Your task to perform on an android device: Go to calendar. Show me events next week Image 0: 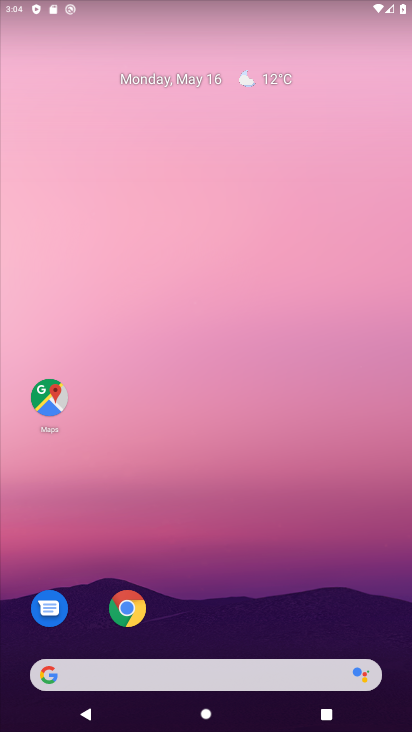
Step 0: drag from (174, 579) to (210, 218)
Your task to perform on an android device: Go to calendar. Show me events next week Image 1: 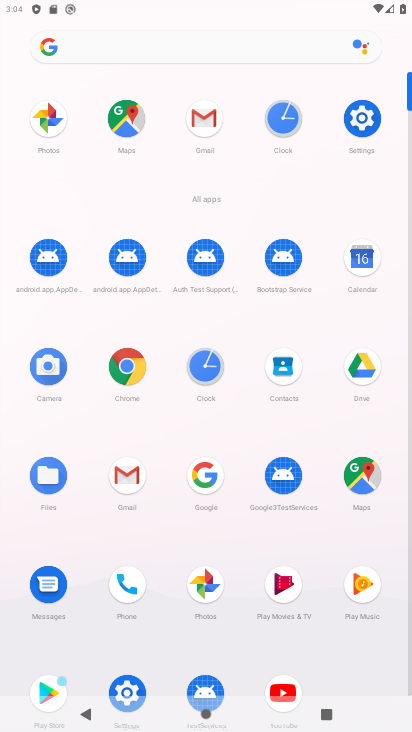
Step 1: click (368, 263)
Your task to perform on an android device: Go to calendar. Show me events next week Image 2: 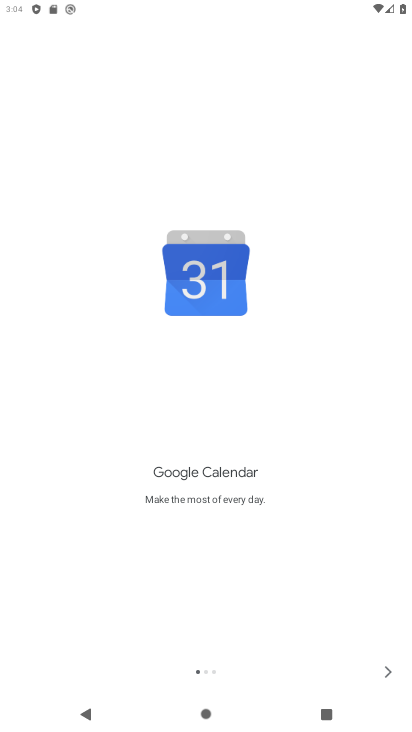
Step 2: click (394, 673)
Your task to perform on an android device: Go to calendar. Show me events next week Image 3: 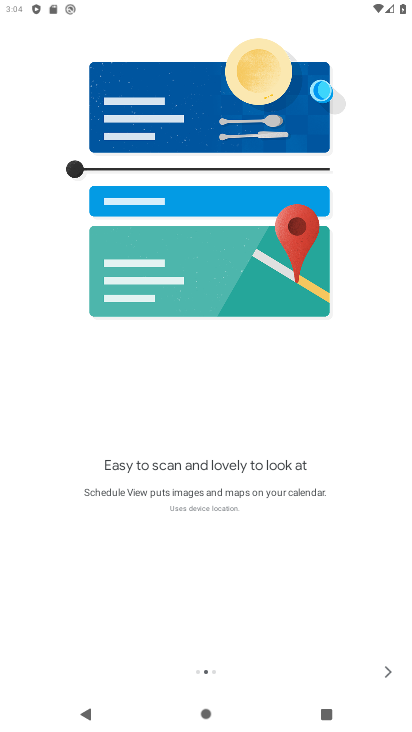
Step 3: click (392, 672)
Your task to perform on an android device: Go to calendar. Show me events next week Image 4: 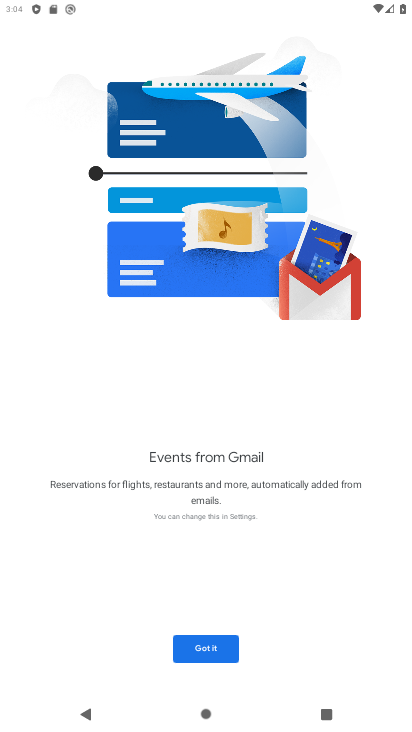
Step 4: click (211, 642)
Your task to perform on an android device: Go to calendar. Show me events next week Image 5: 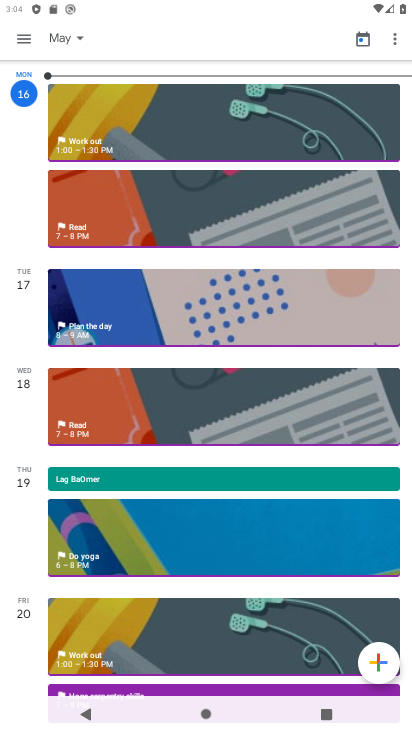
Step 5: click (73, 36)
Your task to perform on an android device: Go to calendar. Show me events next week Image 6: 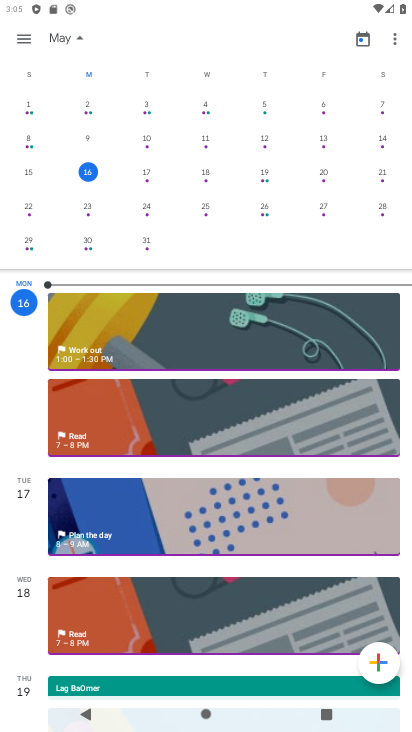
Step 6: drag from (397, 162) to (40, 152)
Your task to perform on an android device: Go to calendar. Show me events next week Image 7: 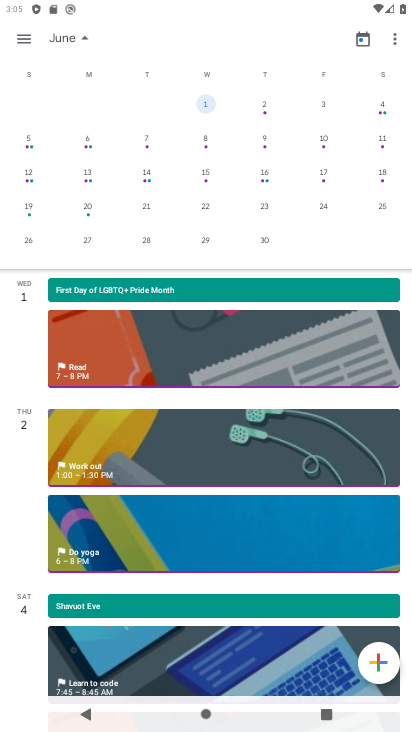
Step 7: drag from (71, 110) to (366, 109)
Your task to perform on an android device: Go to calendar. Show me events next week Image 8: 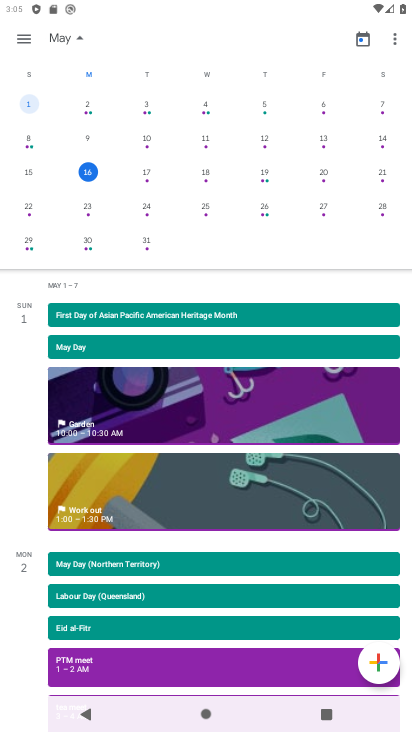
Step 8: click (146, 197)
Your task to perform on an android device: Go to calendar. Show me events next week Image 9: 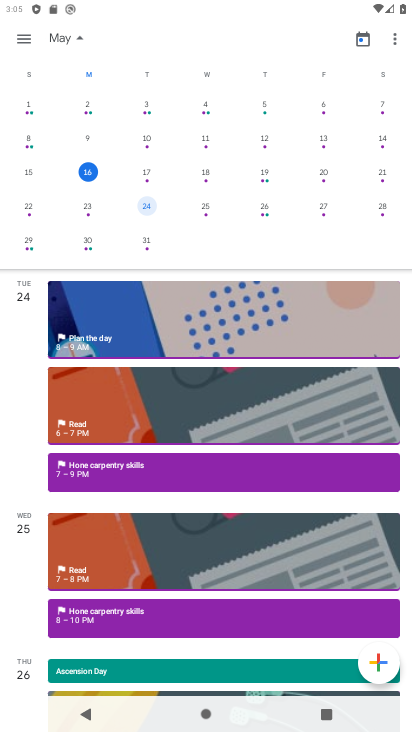
Step 9: click (95, 198)
Your task to perform on an android device: Go to calendar. Show me events next week Image 10: 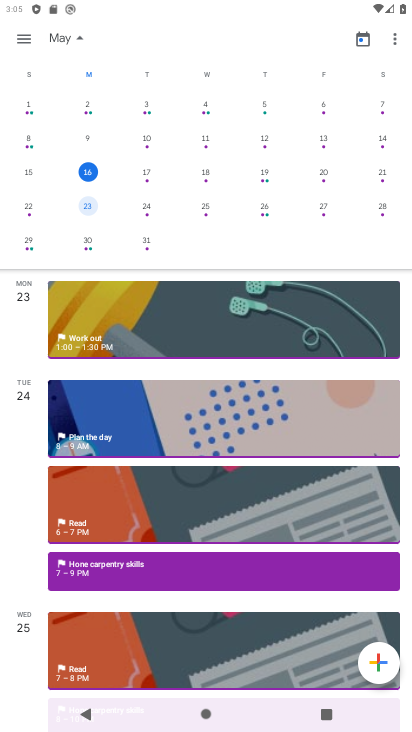
Step 10: click (199, 214)
Your task to perform on an android device: Go to calendar. Show me events next week Image 11: 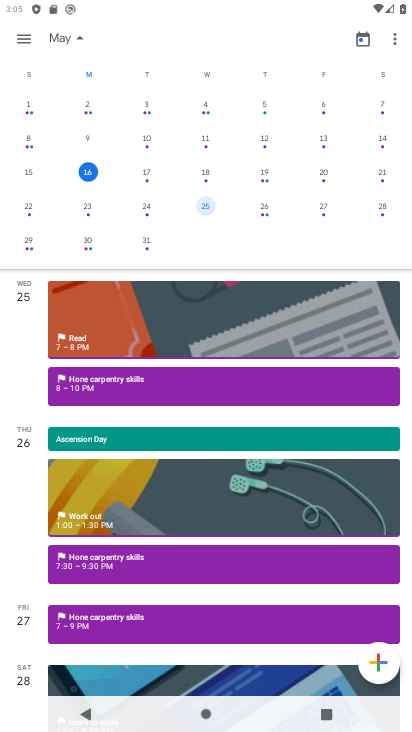
Step 11: click (254, 214)
Your task to perform on an android device: Go to calendar. Show me events next week Image 12: 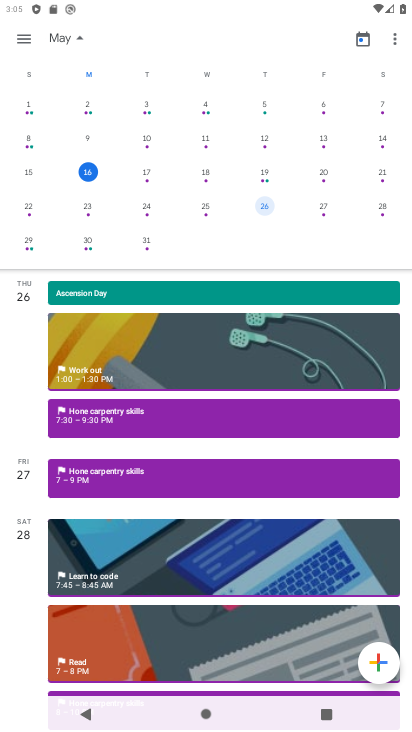
Step 12: click (311, 215)
Your task to perform on an android device: Go to calendar. Show me events next week Image 13: 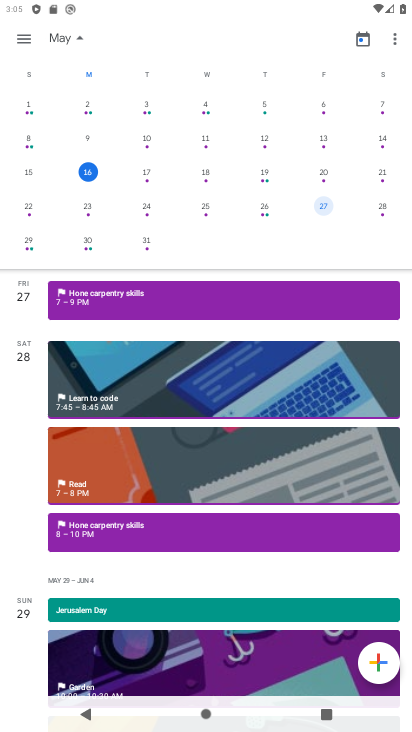
Step 13: task complete